Your task to perform on an android device: delete a single message in the gmail app Image 0: 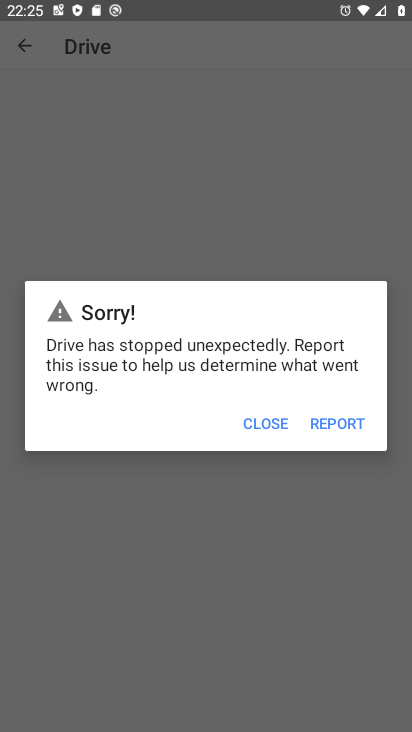
Step 0: press home button
Your task to perform on an android device: delete a single message in the gmail app Image 1: 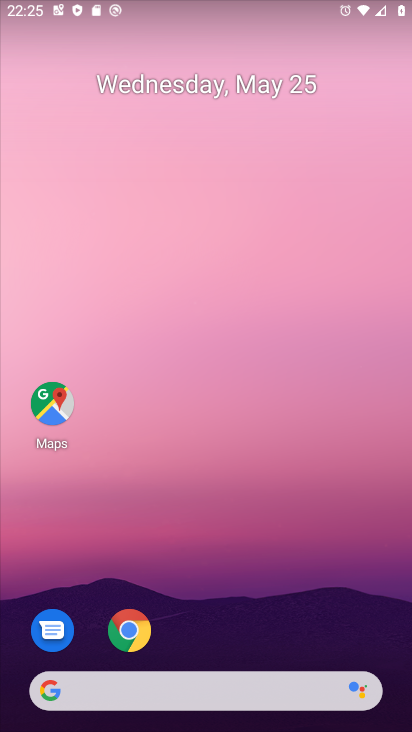
Step 1: drag from (191, 565) to (224, 244)
Your task to perform on an android device: delete a single message in the gmail app Image 2: 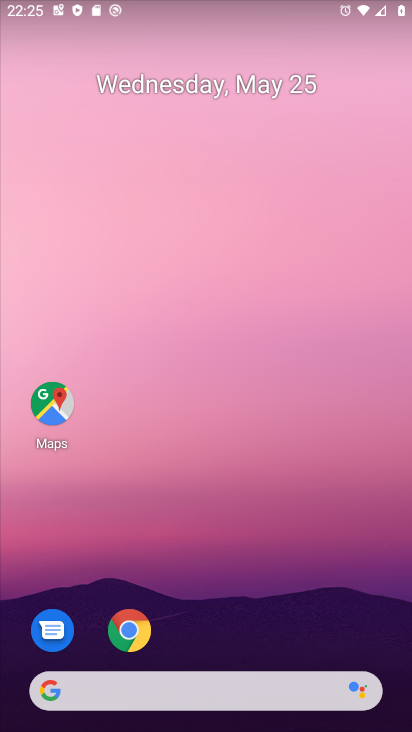
Step 2: drag from (222, 629) to (243, 148)
Your task to perform on an android device: delete a single message in the gmail app Image 3: 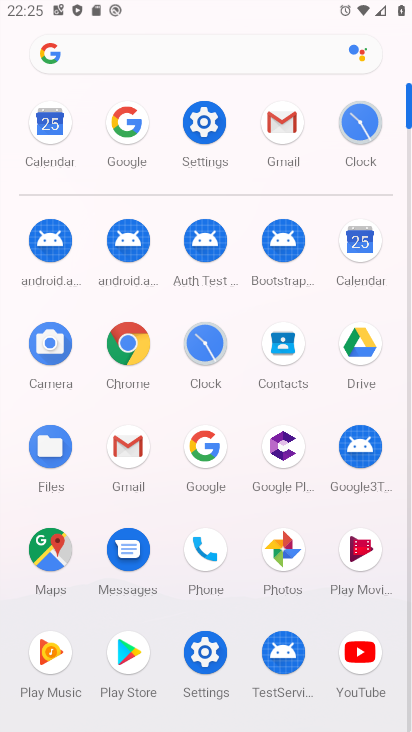
Step 3: click (274, 137)
Your task to perform on an android device: delete a single message in the gmail app Image 4: 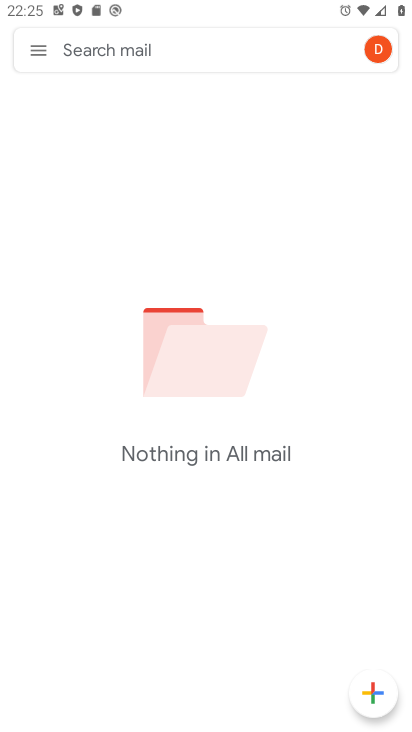
Step 4: click (46, 47)
Your task to perform on an android device: delete a single message in the gmail app Image 5: 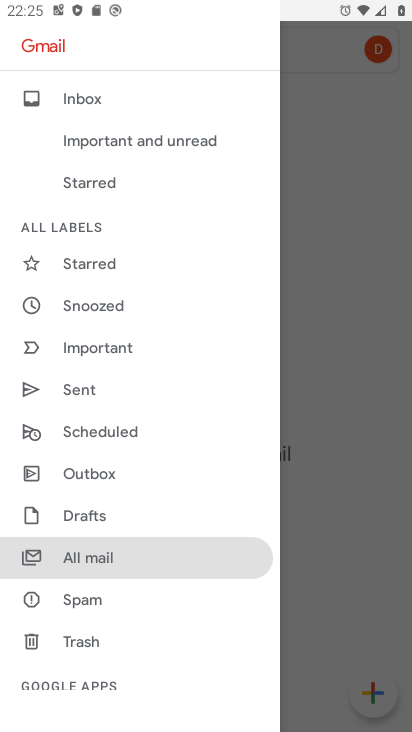
Step 5: click (105, 542)
Your task to perform on an android device: delete a single message in the gmail app Image 6: 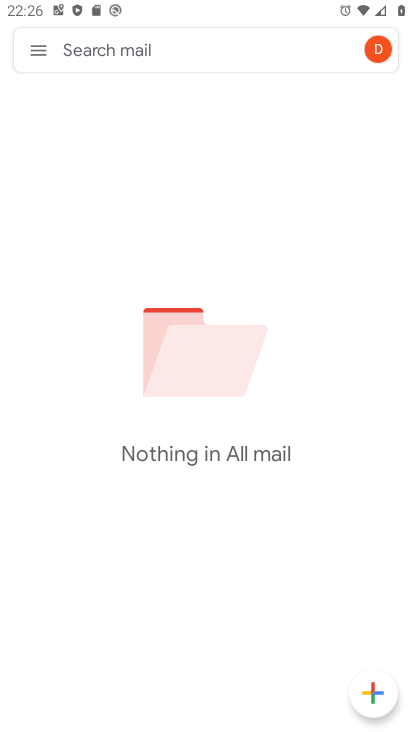
Step 6: task complete